Your task to perform on an android device: Open the calendar app, open the side menu, and click the "Day" option Image 0: 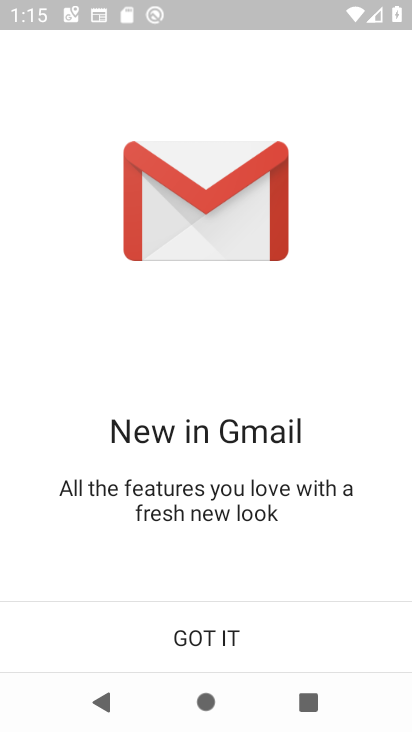
Step 0: press home button
Your task to perform on an android device: Open the calendar app, open the side menu, and click the "Day" option Image 1: 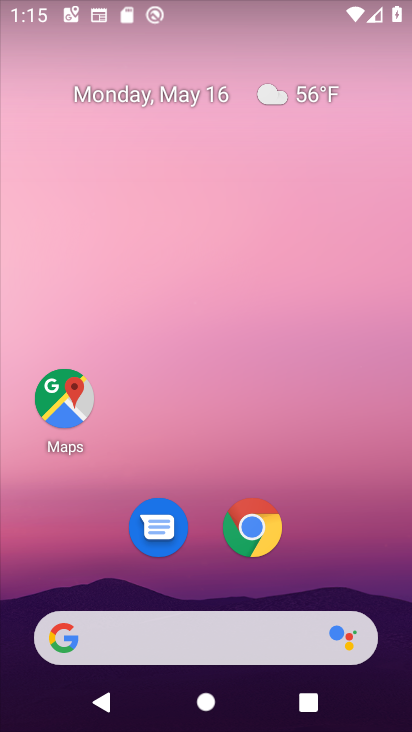
Step 1: drag from (156, 623) to (143, 73)
Your task to perform on an android device: Open the calendar app, open the side menu, and click the "Day" option Image 2: 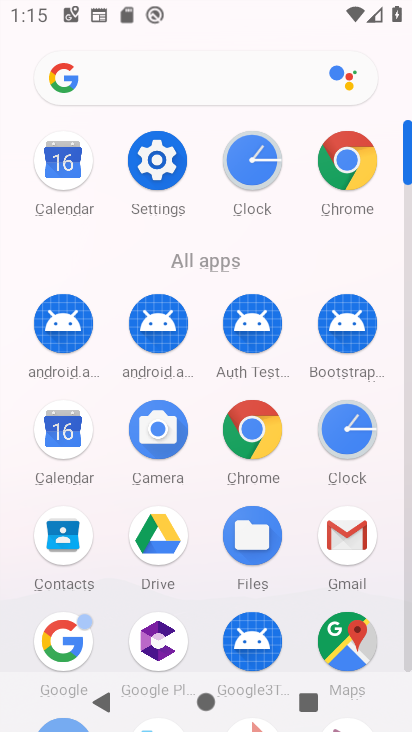
Step 2: click (83, 444)
Your task to perform on an android device: Open the calendar app, open the side menu, and click the "Day" option Image 3: 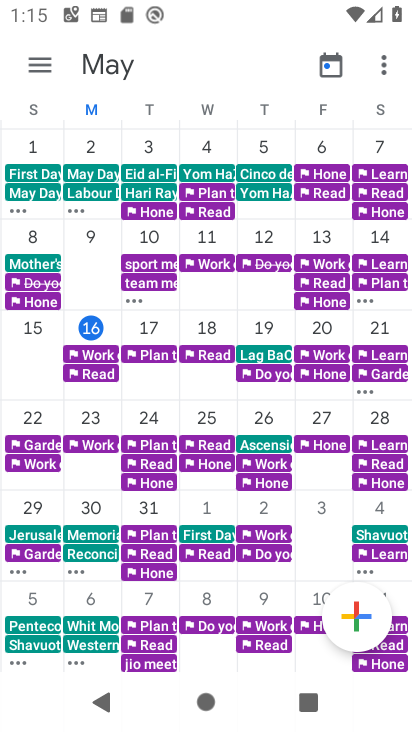
Step 3: click (83, 444)
Your task to perform on an android device: Open the calendar app, open the side menu, and click the "Day" option Image 4: 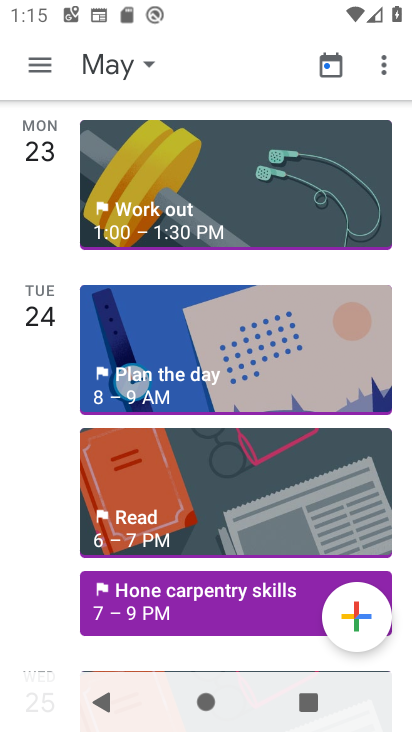
Step 4: click (45, 69)
Your task to perform on an android device: Open the calendar app, open the side menu, and click the "Day" option Image 5: 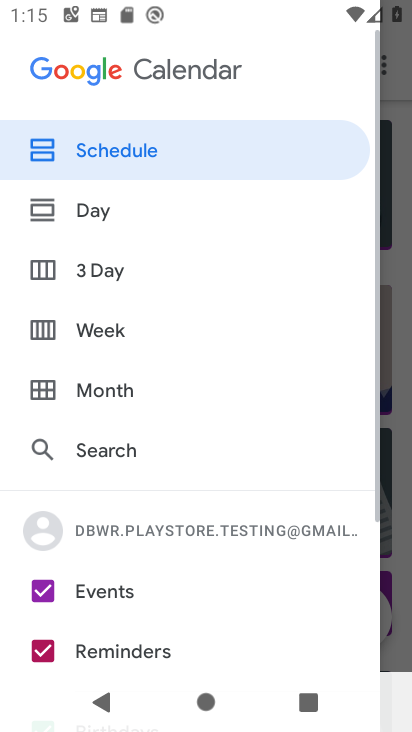
Step 5: click (75, 203)
Your task to perform on an android device: Open the calendar app, open the side menu, and click the "Day" option Image 6: 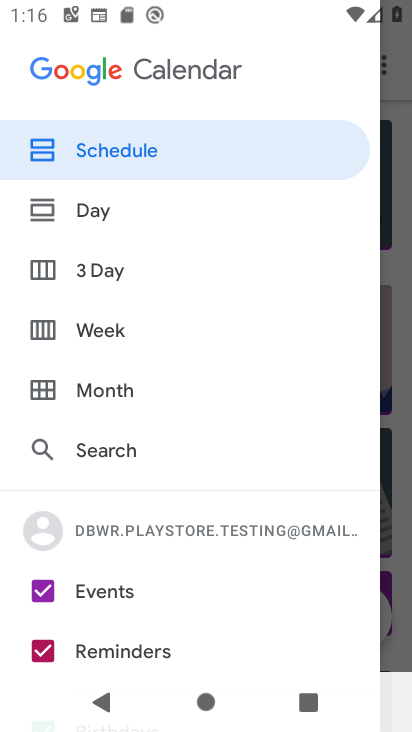
Step 6: click (115, 211)
Your task to perform on an android device: Open the calendar app, open the side menu, and click the "Day" option Image 7: 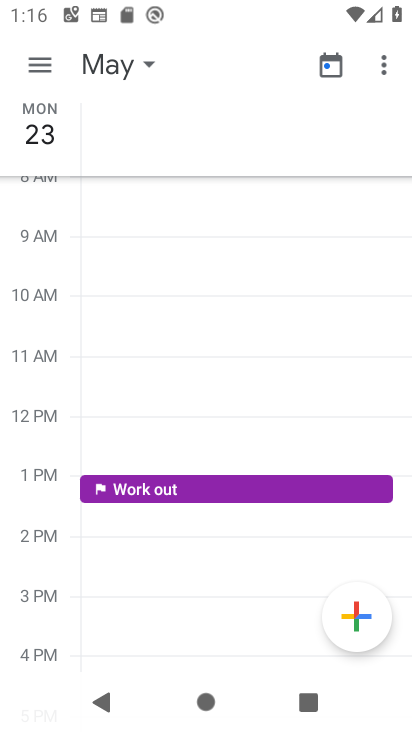
Step 7: task complete